Your task to perform on an android device: Search for a storage ottoman in the living room Image 0: 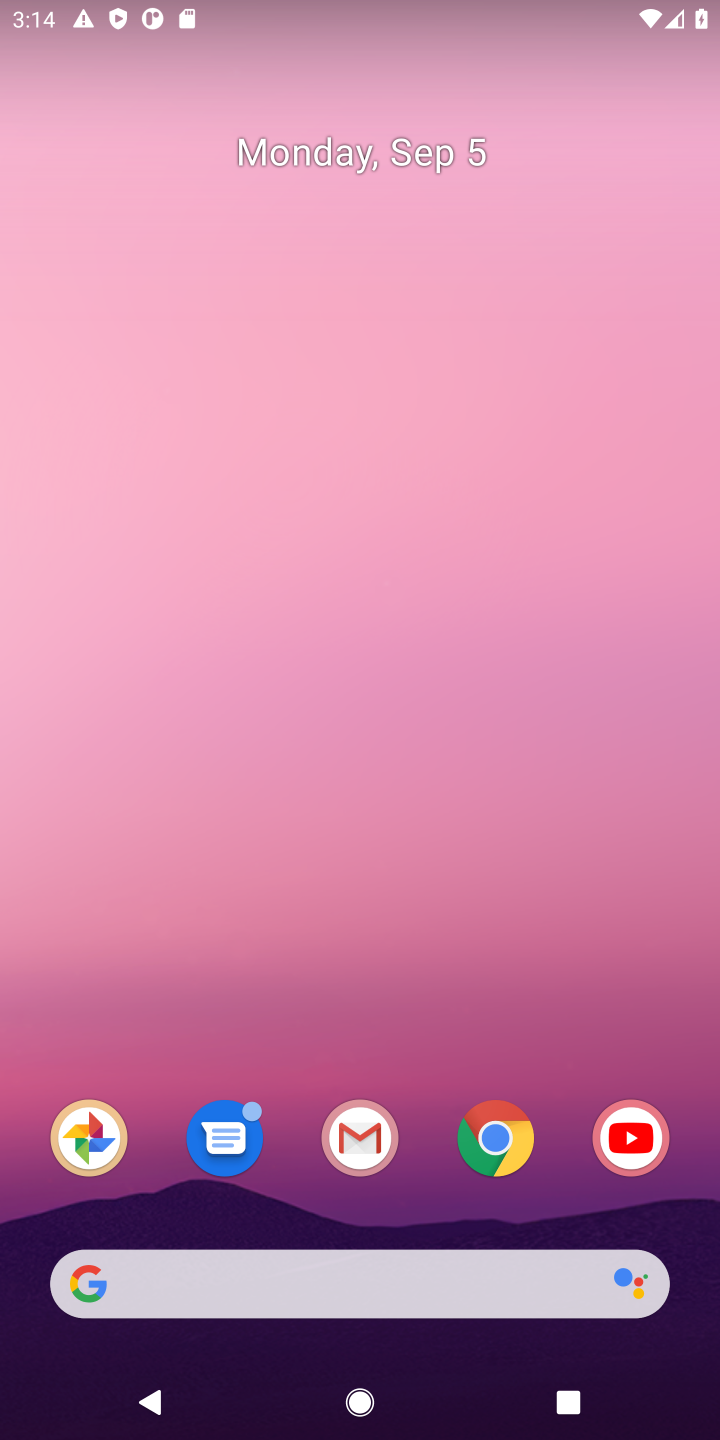
Step 0: click (498, 1137)
Your task to perform on an android device: Search for a storage ottoman in the living room Image 1: 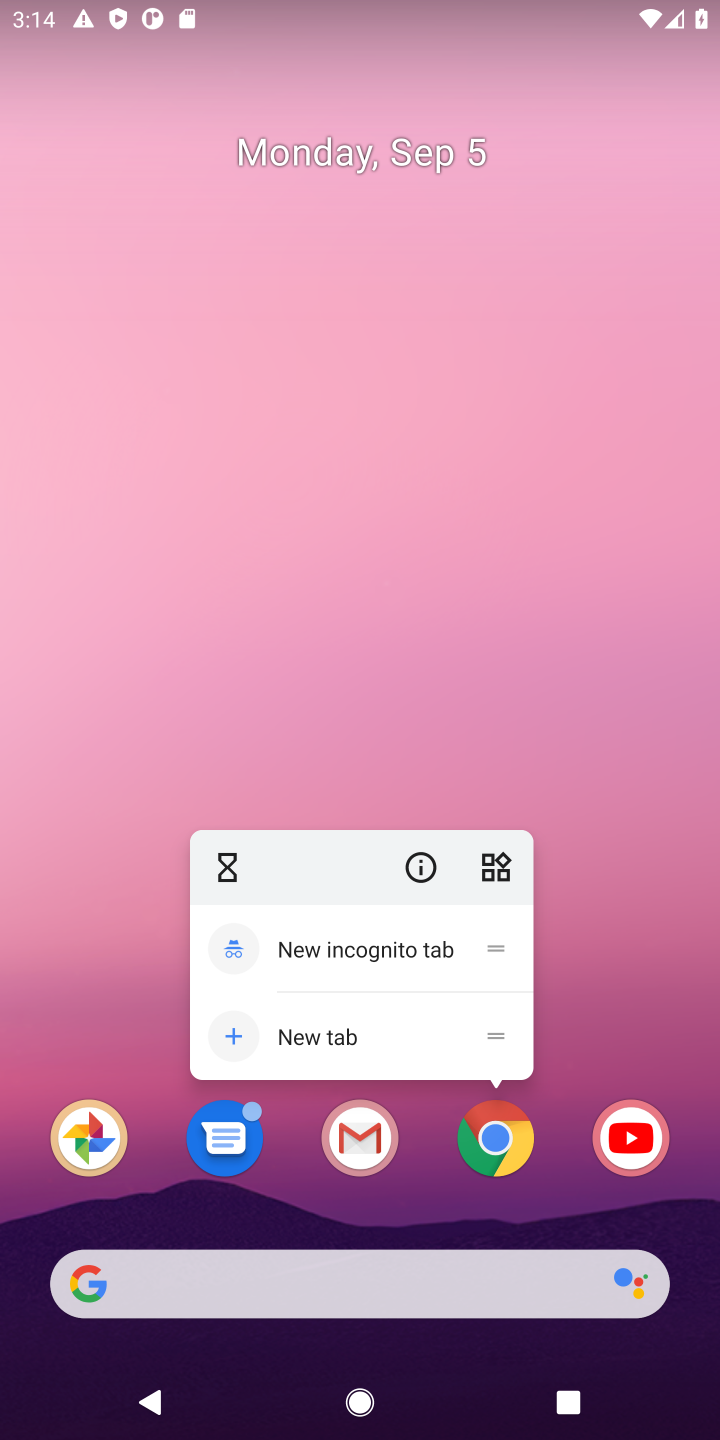
Step 1: click (498, 1137)
Your task to perform on an android device: Search for a storage ottoman in the living room Image 2: 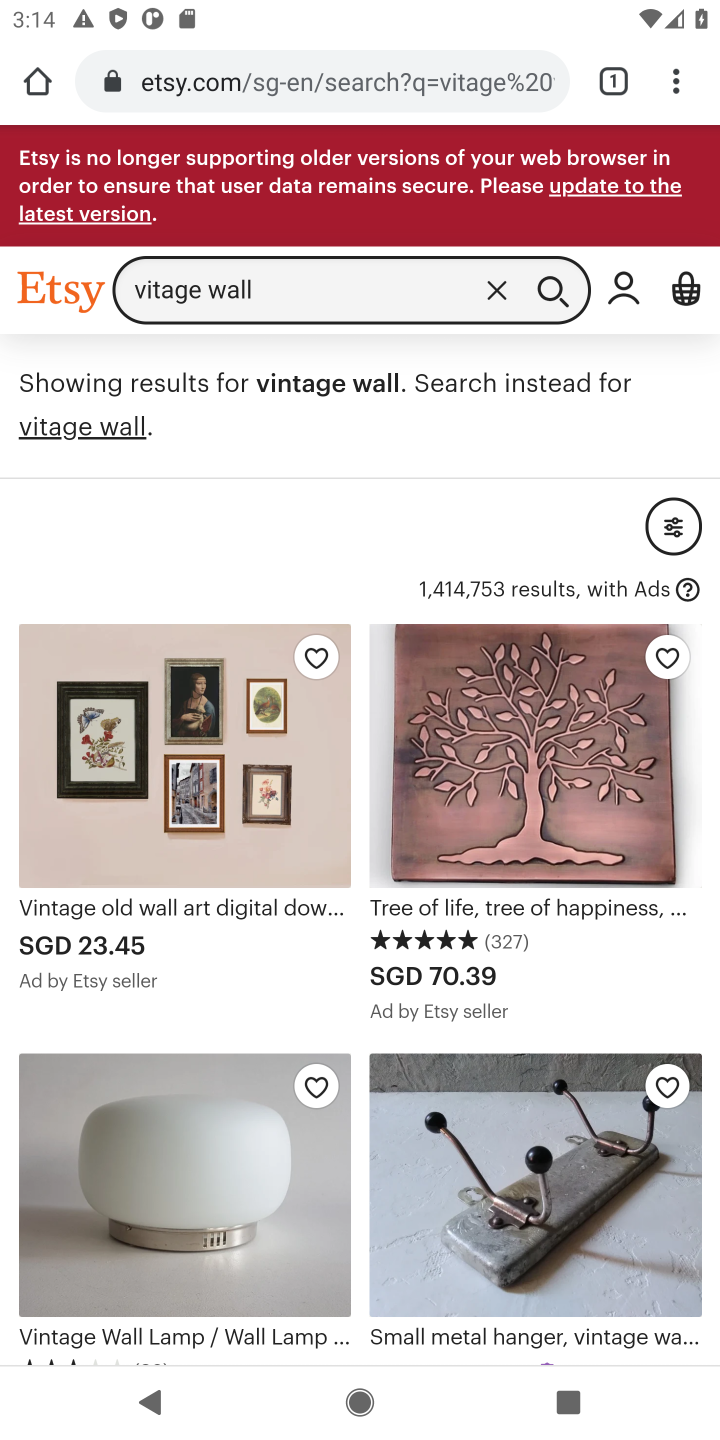
Step 2: click (411, 79)
Your task to perform on an android device: Search for a storage ottoman in the living room Image 3: 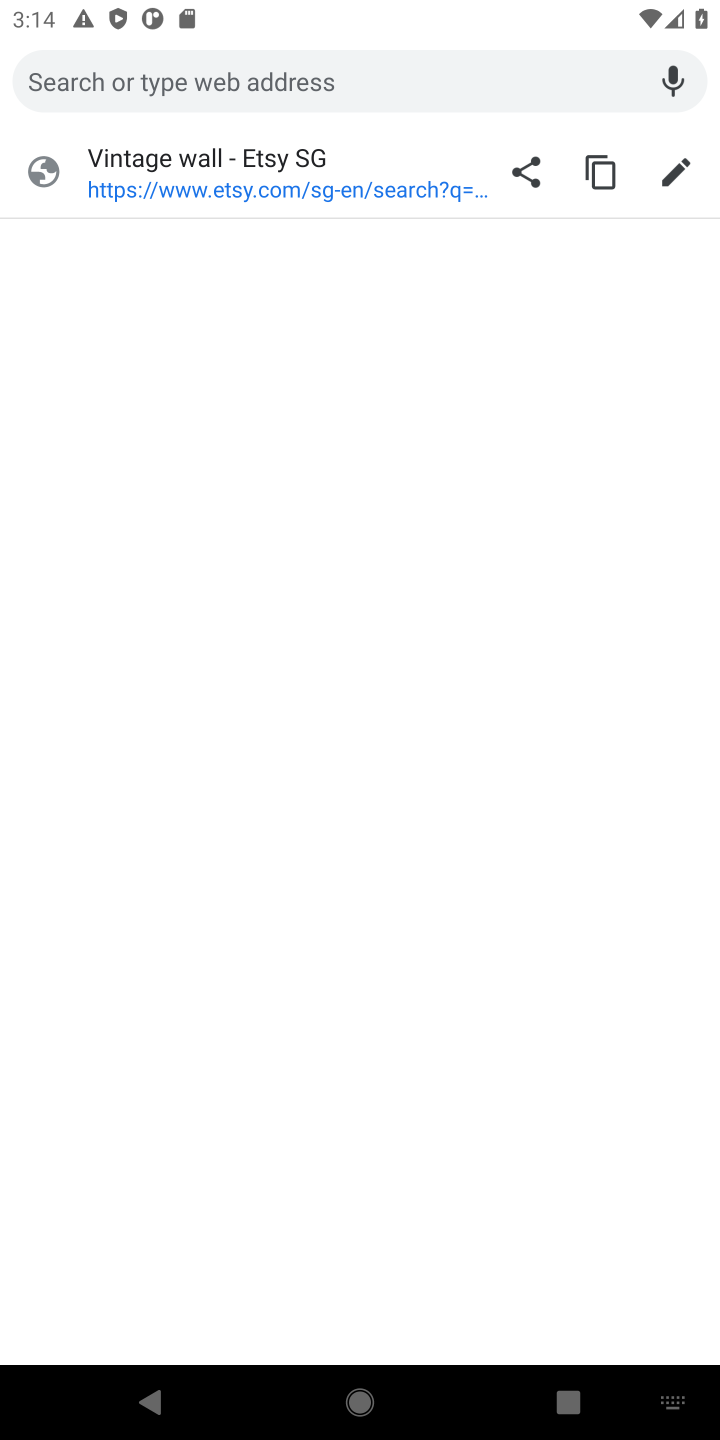
Step 3: type "storage ottoman in the living room"
Your task to perform on an android device: Search for a storage ottoman in the living room Image 4: 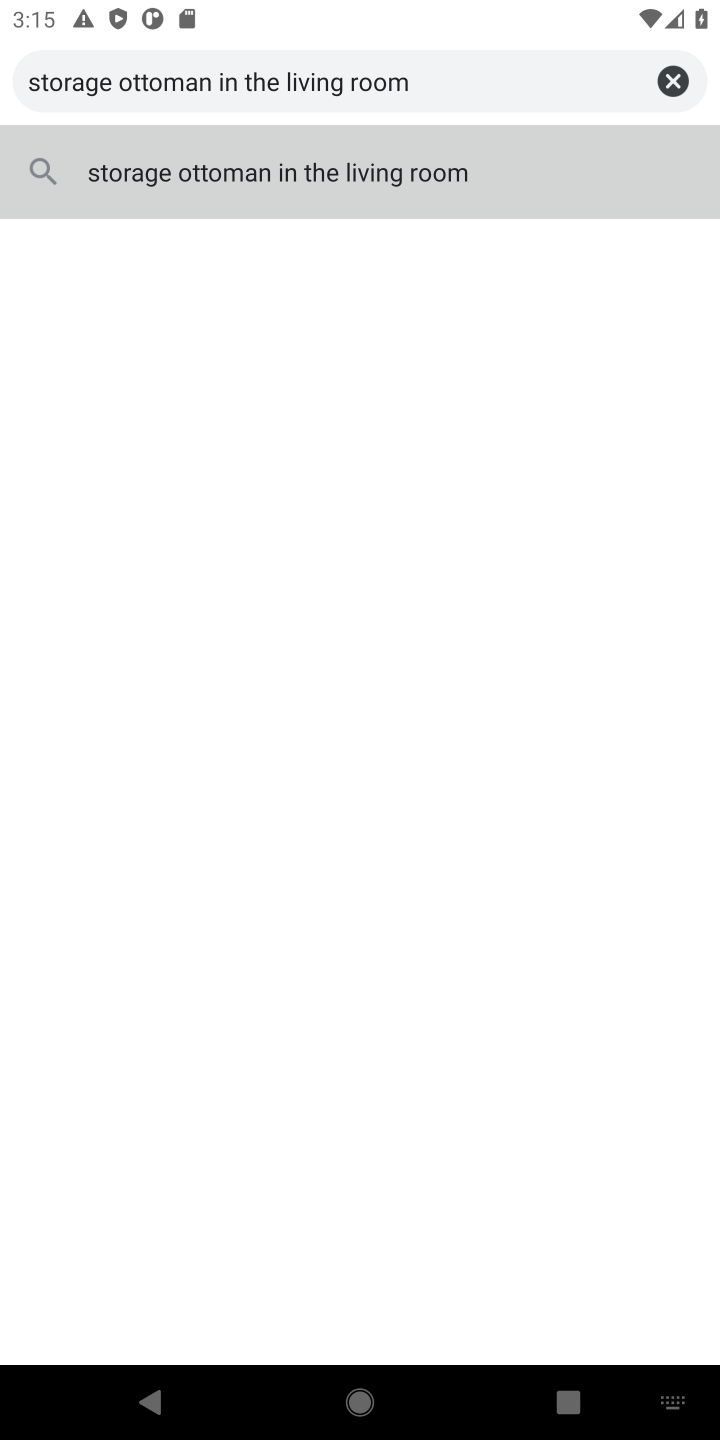
Step 4: click (460, 176)
Your task to perform on an android device: Search for a storage ottoman in the living room Image 5: 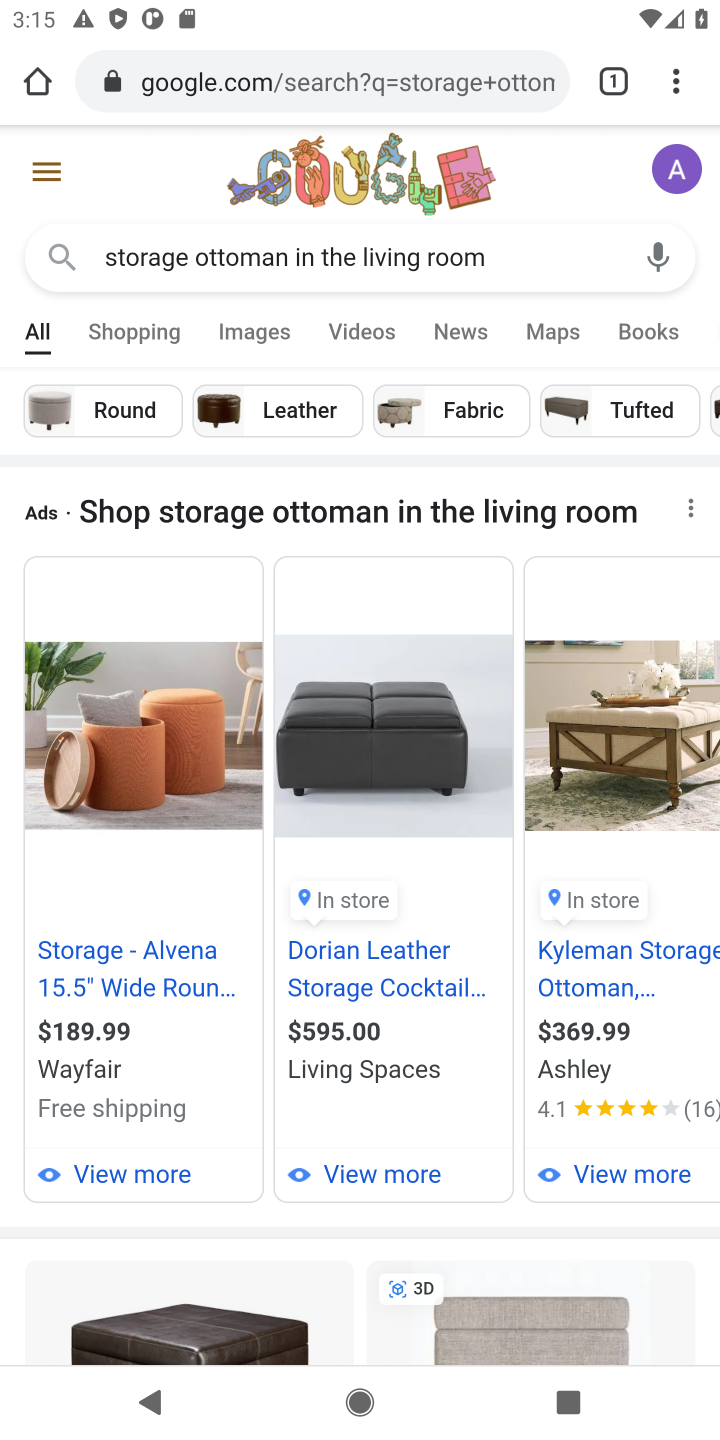
Step 5: drag from (336, 1236) to (704, 691)
Your task to perform on an android device: Search for a storage ottoman in the living room Image 6: 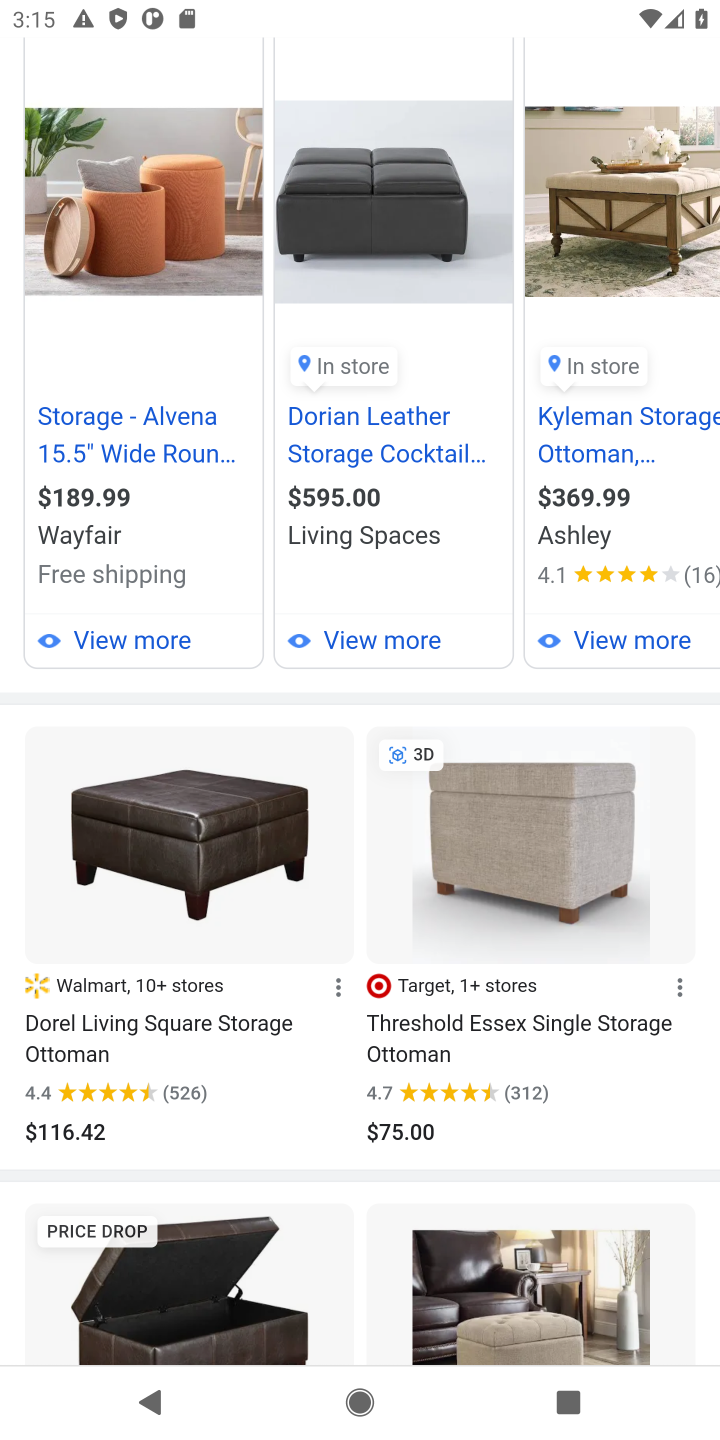
Step 6: drag from (552, 1172) to (594, 711)
Your task to perform on an android device: Search for a storage ottoman in the living room Image 7: 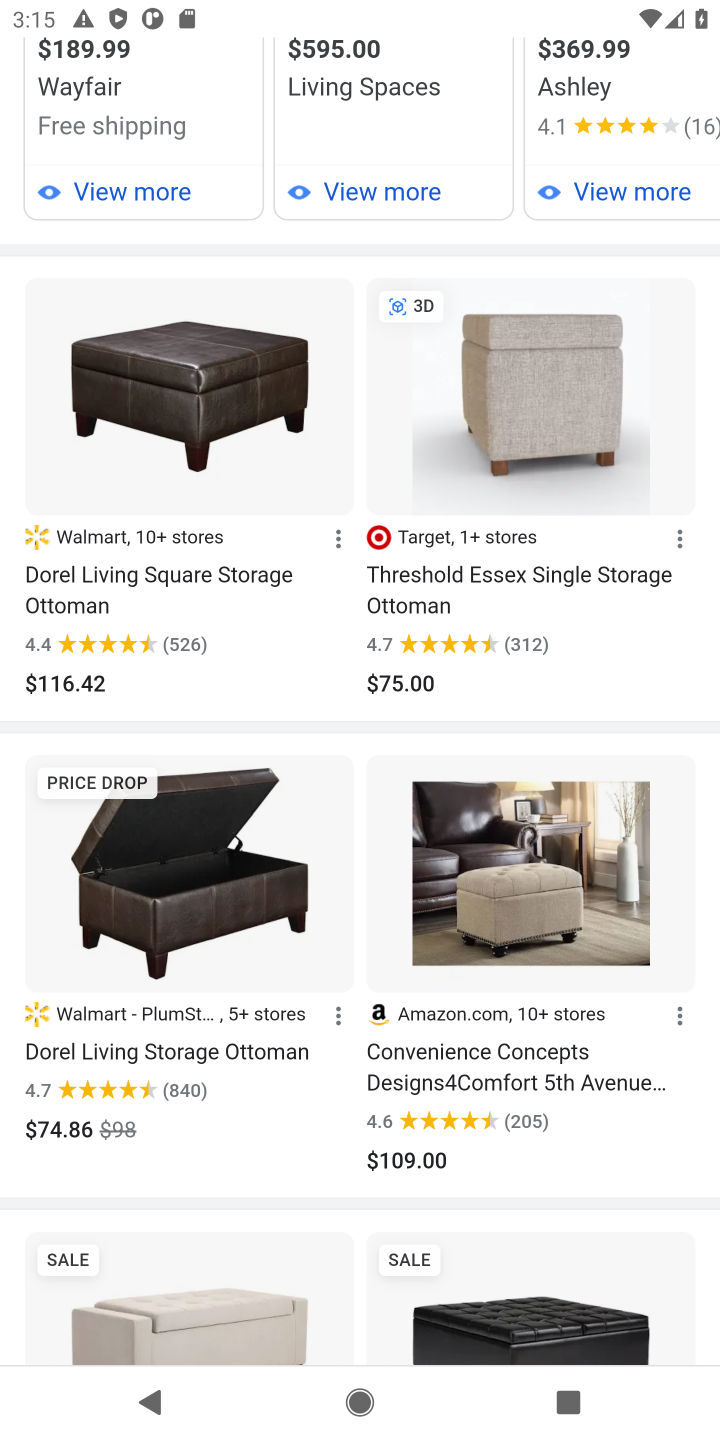
Step 7: click (275, 569)
Your task to perform on an android device: Search for a storage ottoman in the living room Image 8: 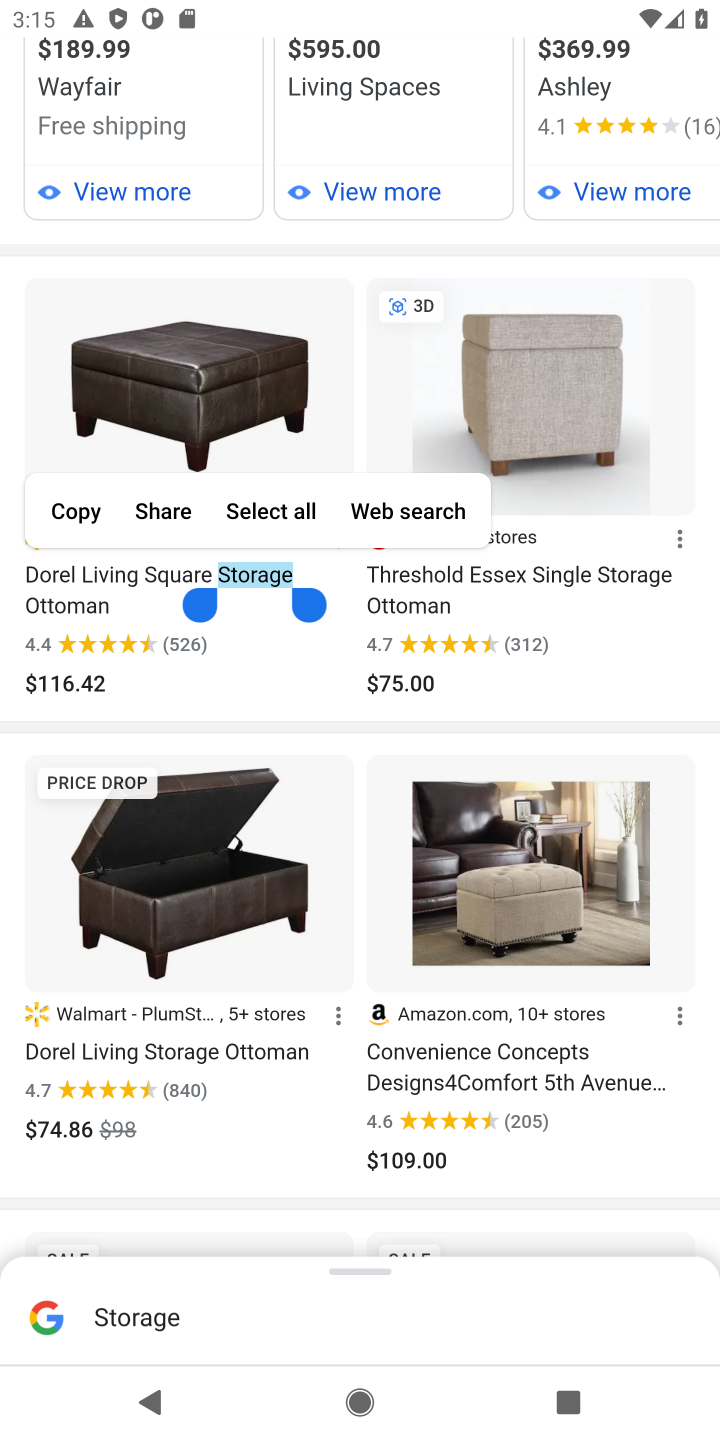
Step 8: click (57, 585)
Your task to perform on an android device: Search for a storage ottoman in the living room Image 9: 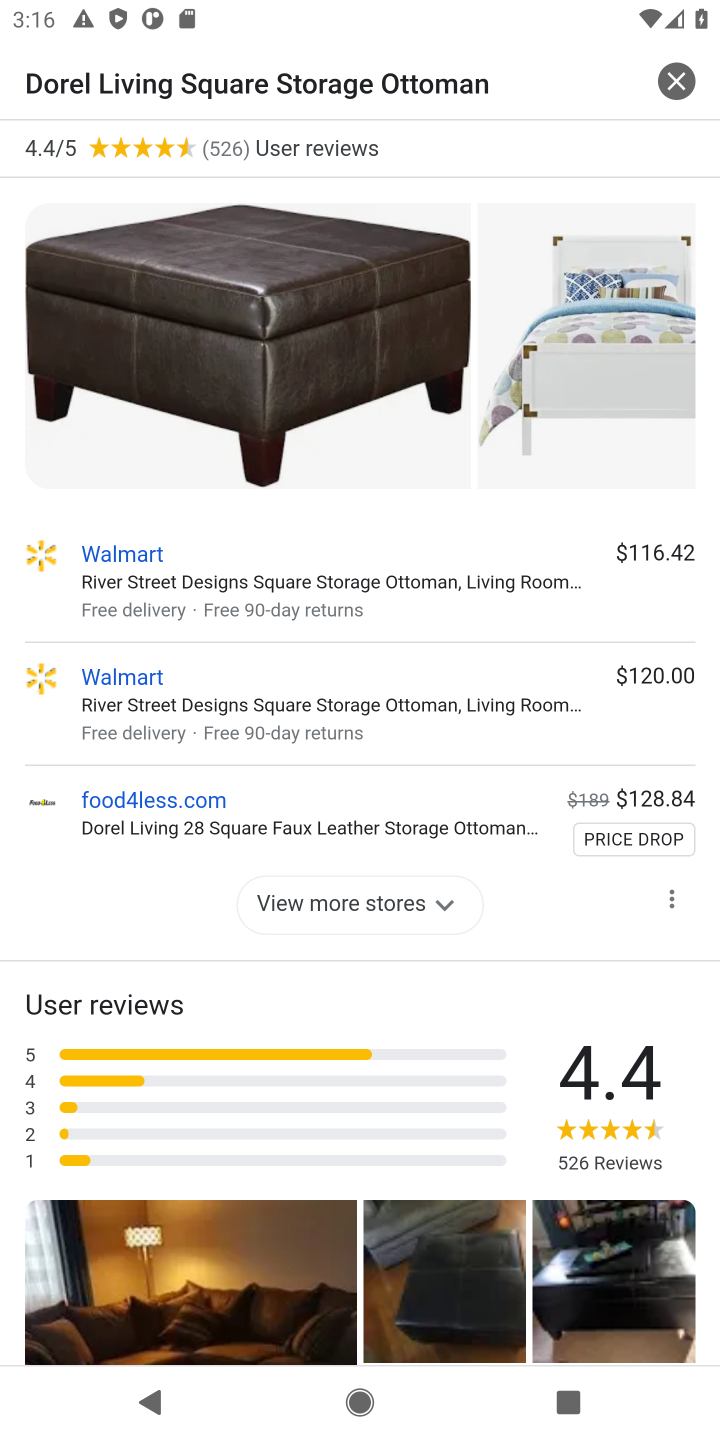
Step 9: task complete